Your task to perform on an android device: Clear the cart on walmart. Image 0: 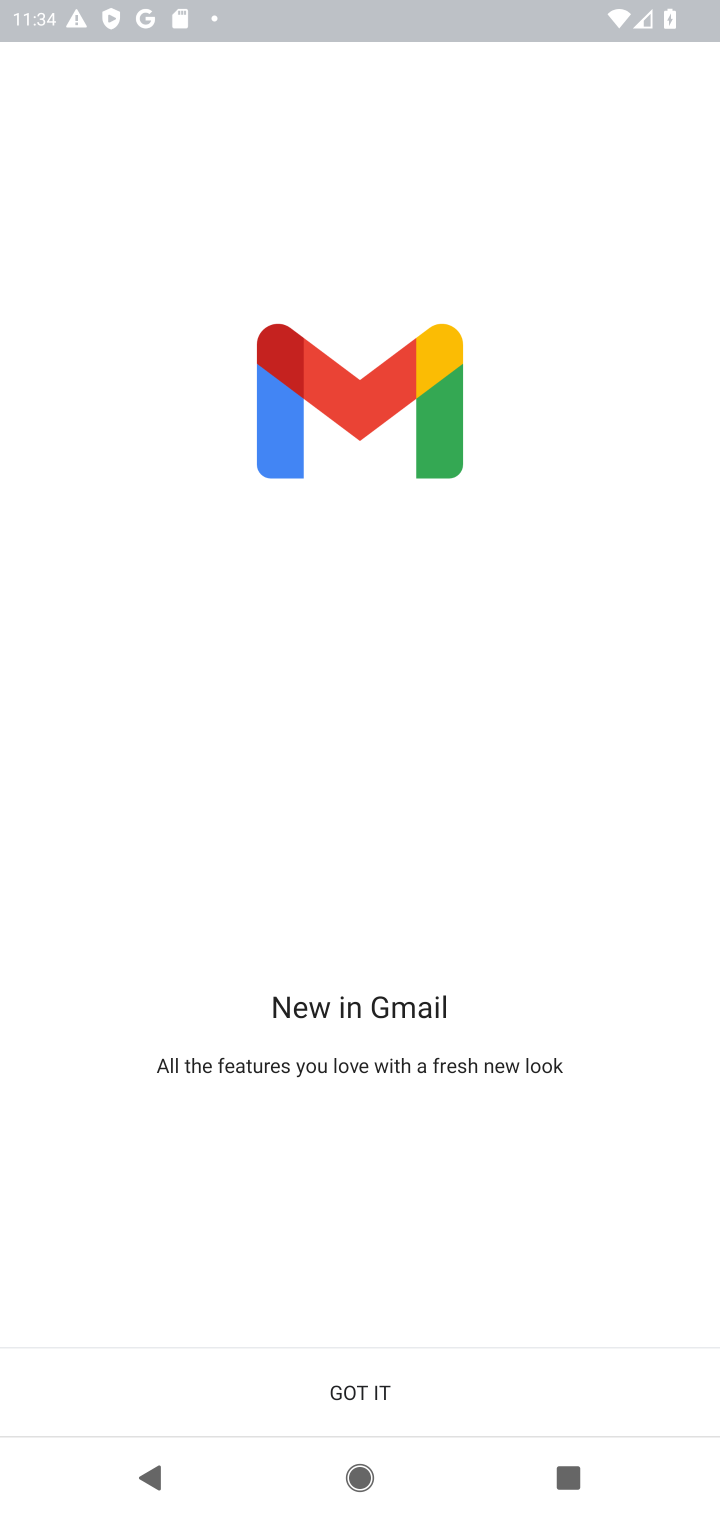
Step 0: task complete